Your task to perform on an android device: turn pop-ups off in chrome Image 0: 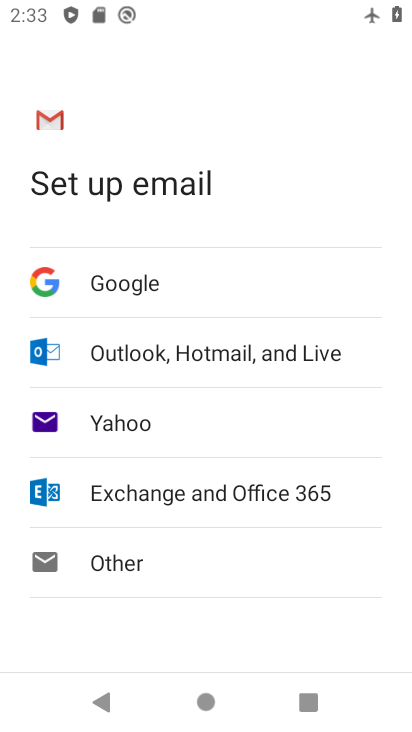
Step 0: press home button
Your task to perform on an android device: turn pop-ups off in chrome Image 1: 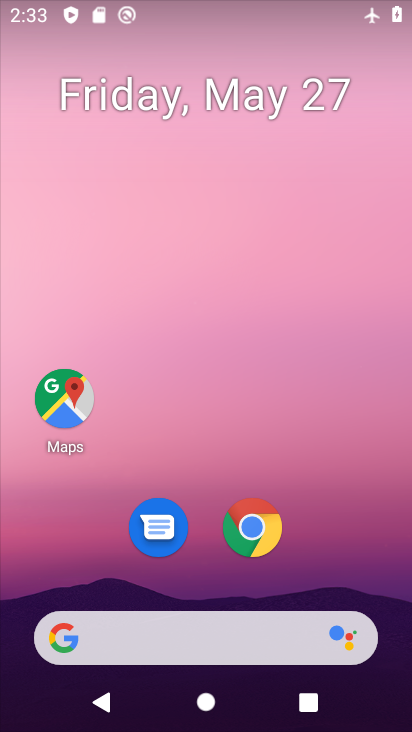
Step 1: click (252, 539)
Your task to perform on an android device: turn pop-ups off in chrome Image 2: 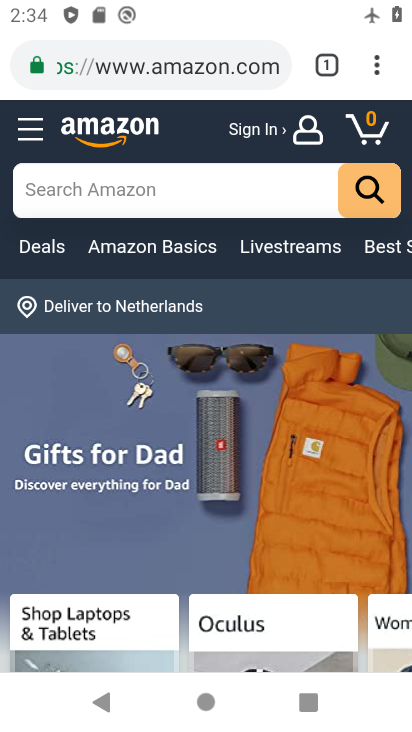
Step 2: click (381, 67)
Your task to perform on an android device: turn pop-ups off in chrome Image 3: 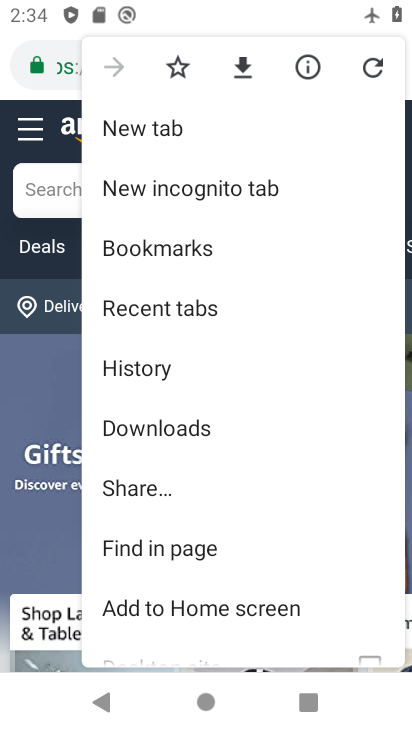
Step 3: drag from (267, 550) to (316, 189)
Your task to perform on an android device: turn pop-ups off in chrome Image 4: 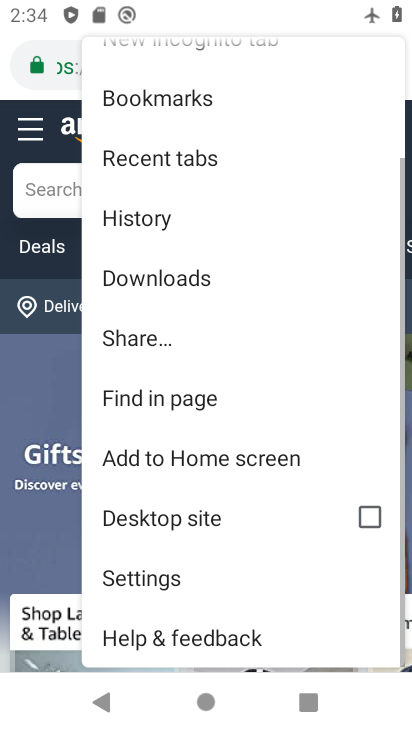
Step 4: click (192, 592)
Your task to perform on an android device: turn pop-ups off in chrome Image 5: 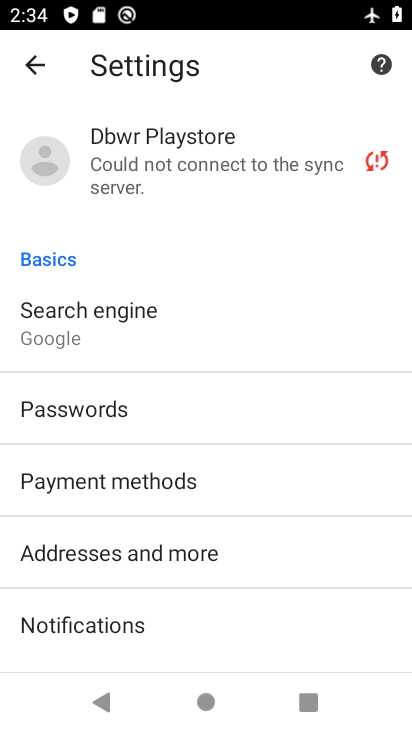
Step 5: drag from (275, 567) to (308, 38)
Your task to perform on an android device: turn pop-ups off in chrome Image 6: 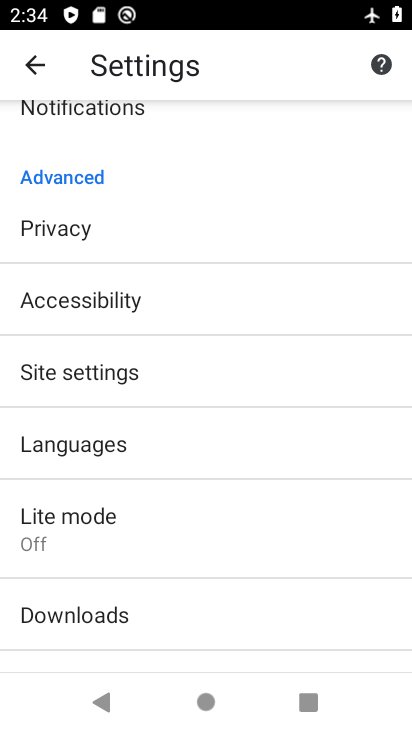
Step 6: click (149, 385)
Your task to perform on an android device: turn pop-ups off in chrome Image 7: 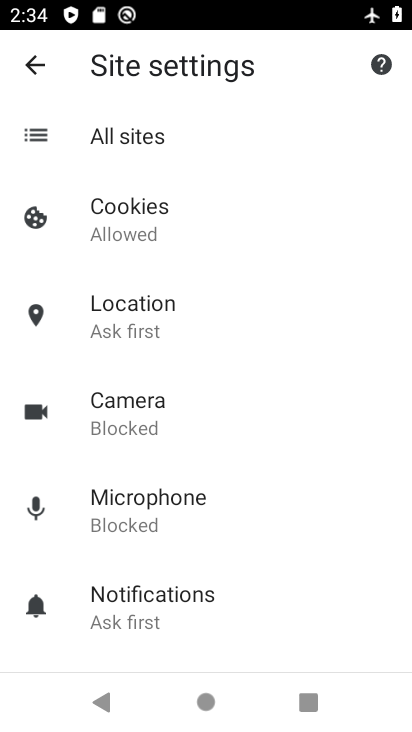
Step 7: drag from (269, 599) to (360, 104)
Your task to perform on an android device: turn pop-ups off in chrome Image 8: 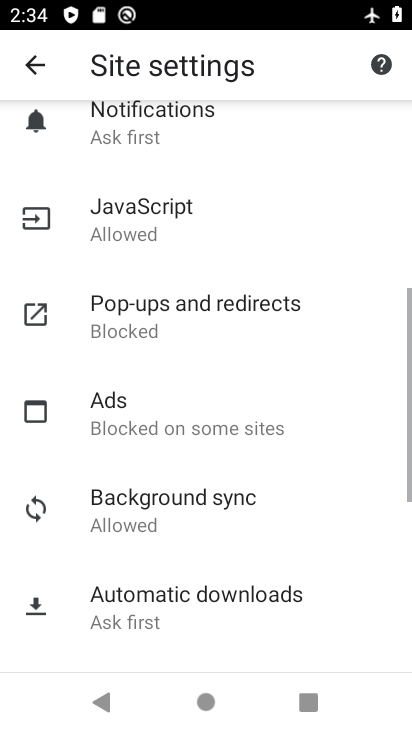
Step 8: click (268, 294)
Your task to perform on an android device: turn pop-ups off in chrome Image 9: 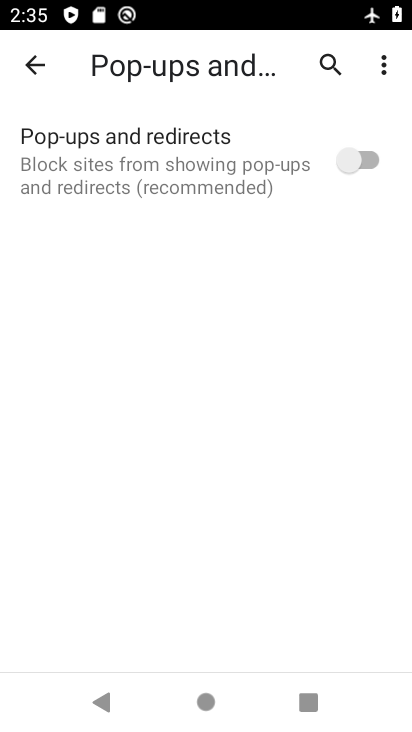
Step 9: task complete